Your task to perform on an android device: open app "Microsoft Excel" Image 0: 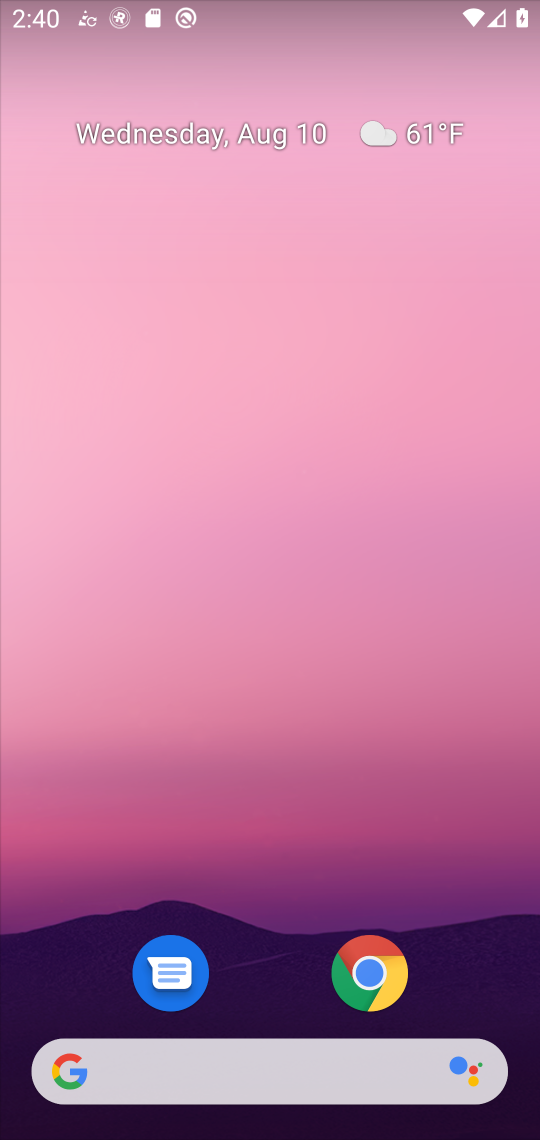
Step 0: drag from (311, 1013) to (311, 145)
Your task to perform on an android device: open app "Microsoft Excel" Image 1: 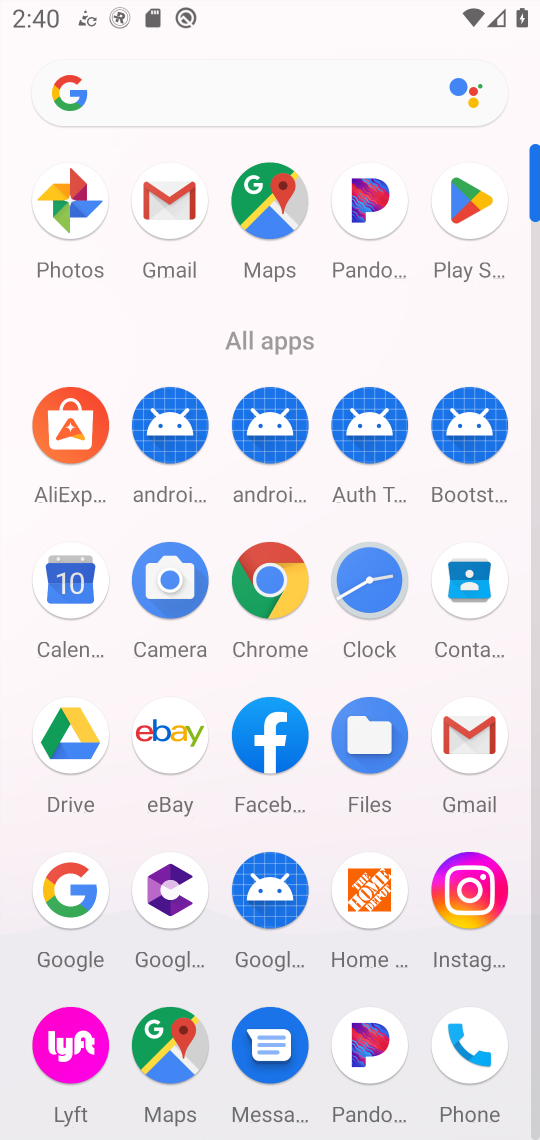
Step 1: click (460, 192)
Your task to perform on an android device: open app "Microsoft Excel" Image 2: 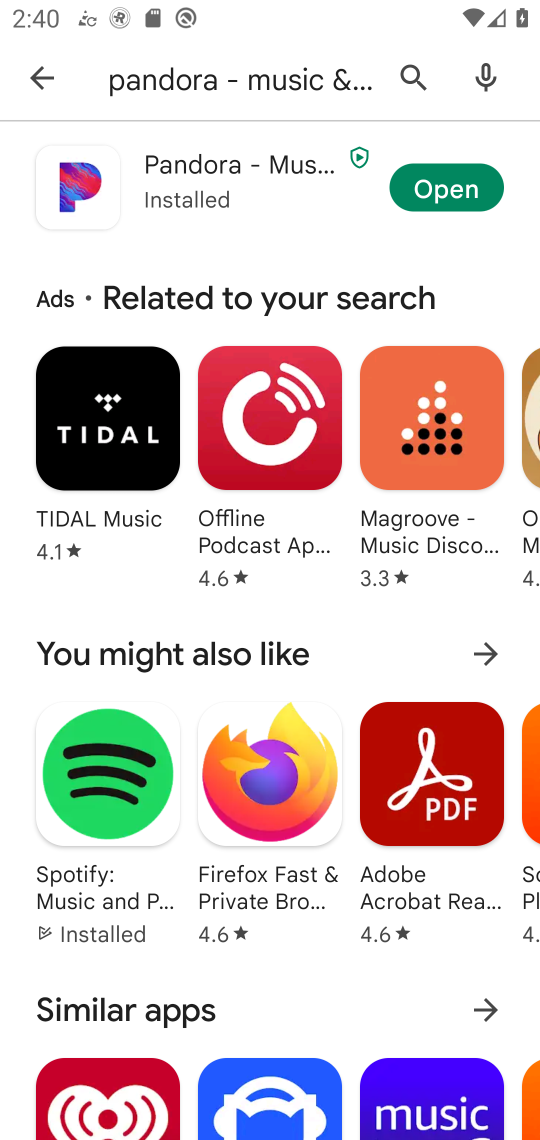
Step 2: click (46, 76)
Your task to perform on an android device: open app "Microsoft Excel" Image 3: 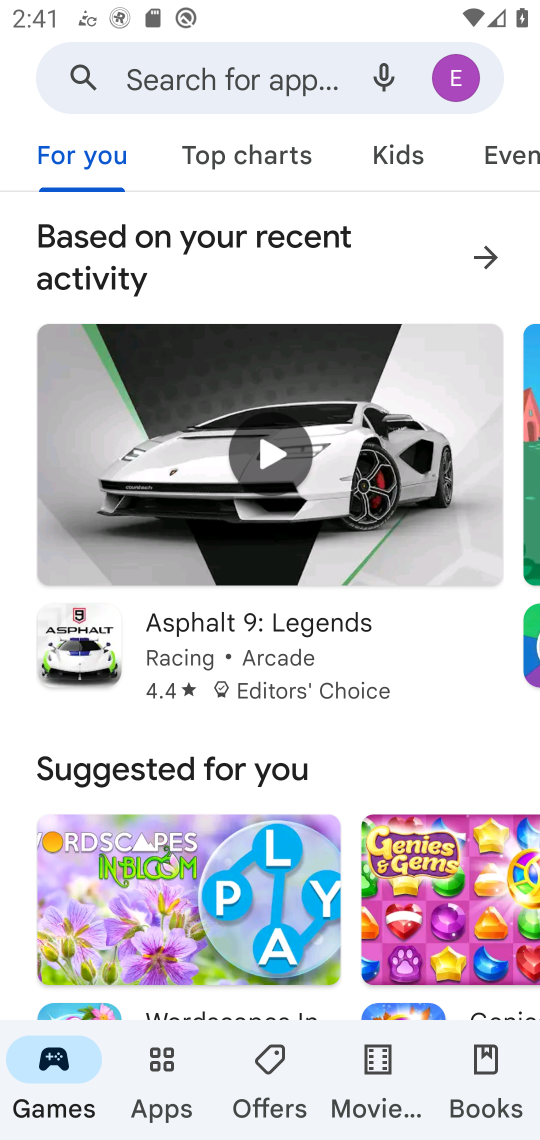
Step 3: click (212, 69)
Your task to perform on an android device: open app "Microsoft Excel" Image 4: 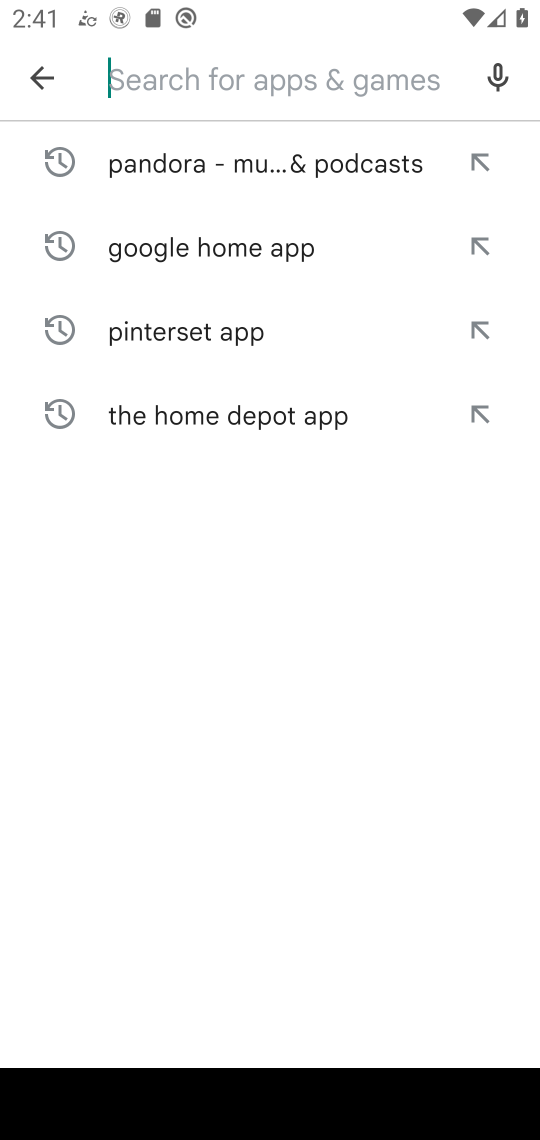
Step 4: type "Microsoft Excel "
Your task to perform on an android device: open app "Microsoft Excel" Image 5: 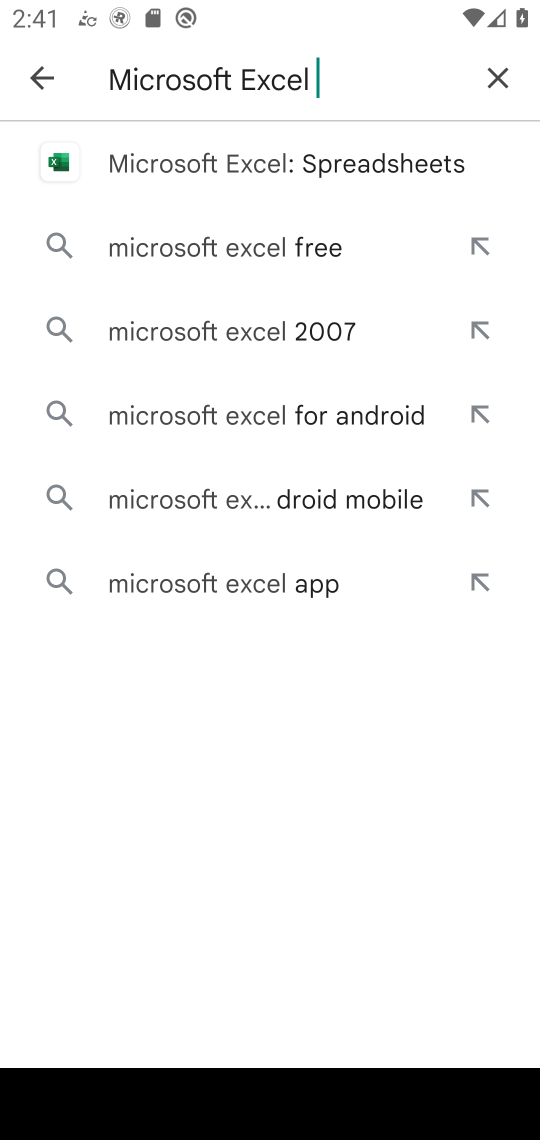
Step 5: click (258, 416)
Your task to perform on an android device: open app "Microsoft Excel" Image 6: 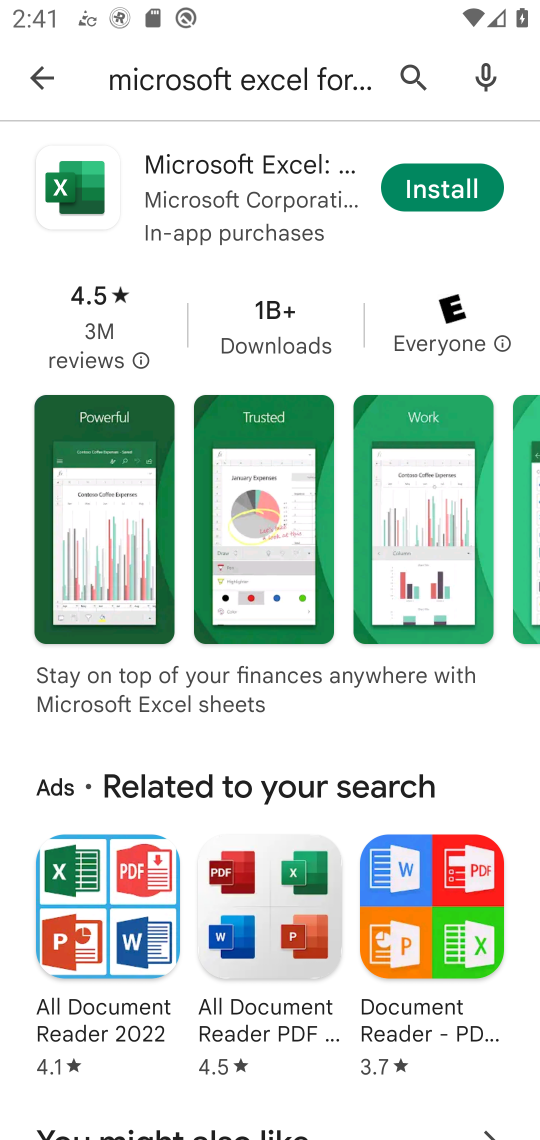
Step 6: click (446, 183)
Your task to perform on an android device: open app "Microsoft Excel" Image 7: 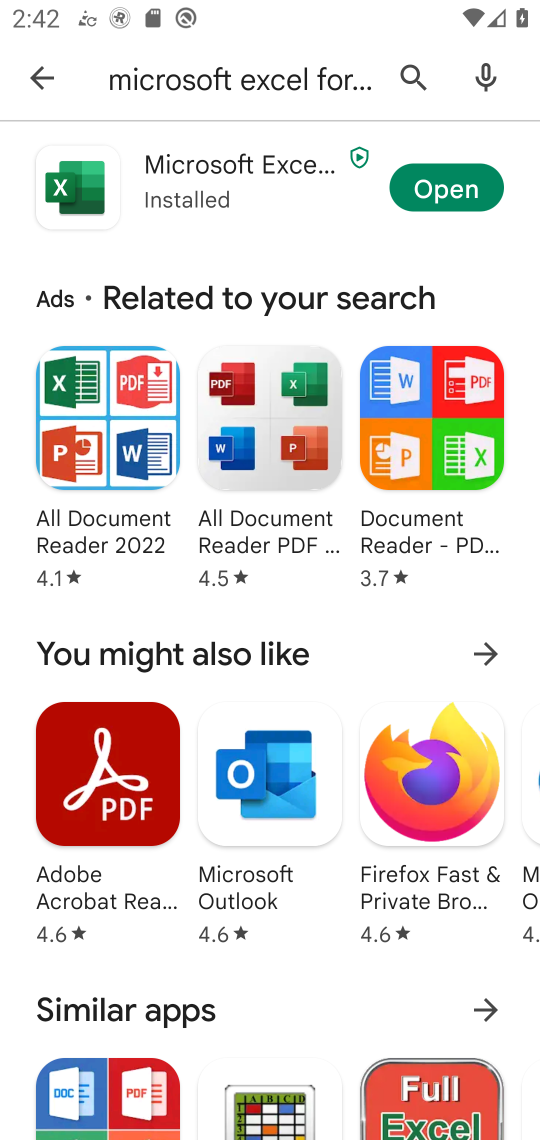
Step 7: task complete